Your task to perform on an android device: open chrome privacy settings Image 0: 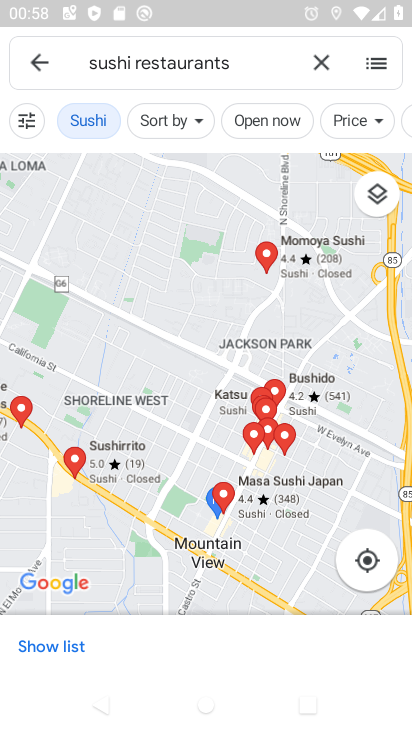
Step 0: press home button
Your task to perform on an android device: open chrome privacy settings Image 1: 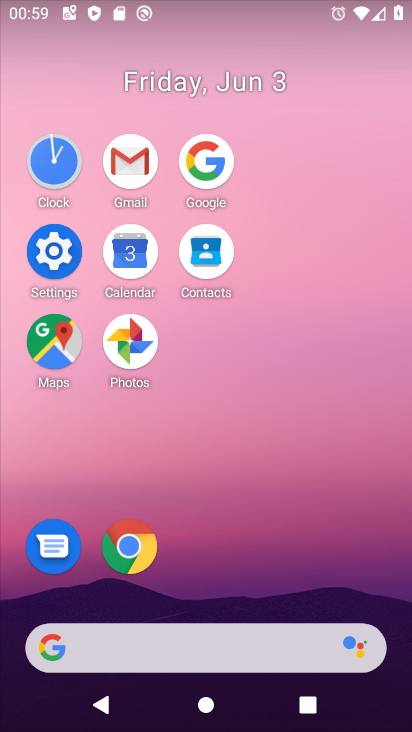
Step 1: click (142, 568)
Your task to perform on an android device: open chrome privacy settings Image 2: 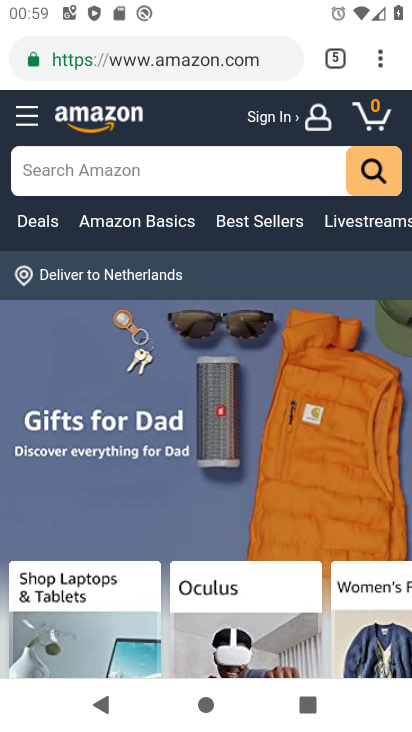
Step 2: click (387, 59)
Your task to perform on an android device: open chrome privacy settings Image 3: 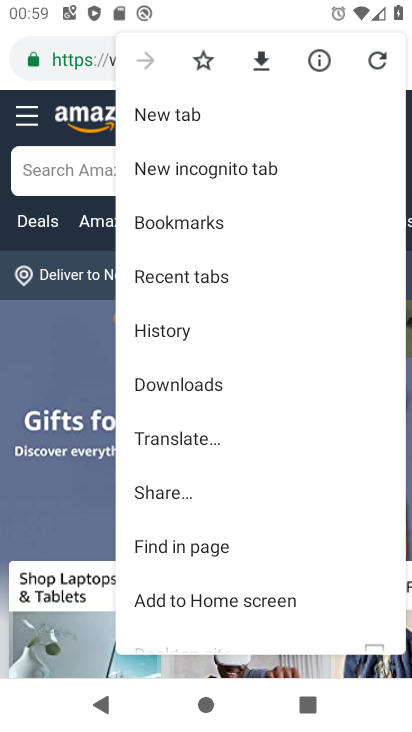
Step 3: drag from (256, 474) to (314, 162)
Your task to perform on an android device: open chrome privacy settings Image 4: 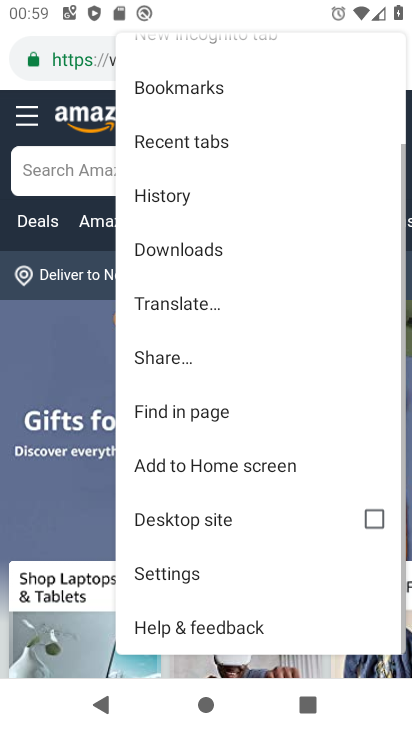
Step 4: click (226, 572)
Your task to perform on an android device: open chrome privacy settings Image 5: 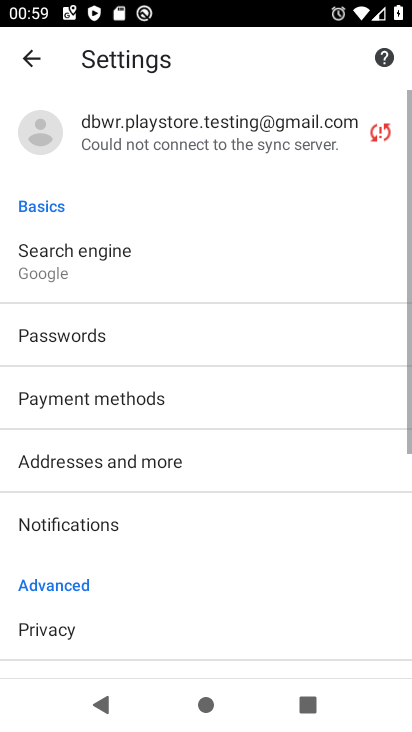
Step 5: drag from (223, 561) to (296, 217)
Your task to perform on an android device: open chrome privacy settings Image 6: 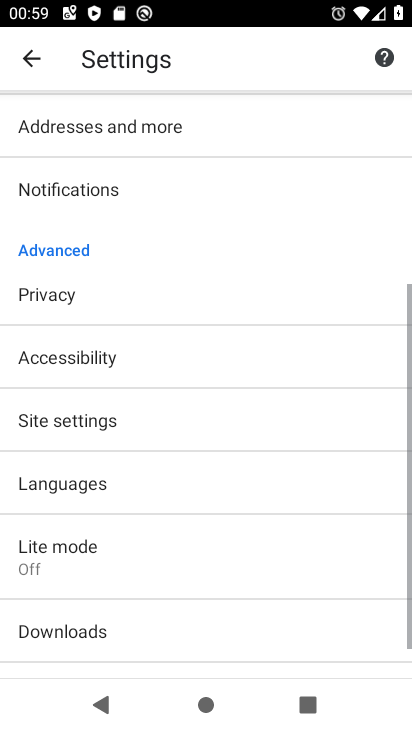
Step 6: click (149, 297)
Your task to perform on an android device: open chrome privacy settings Image 7: 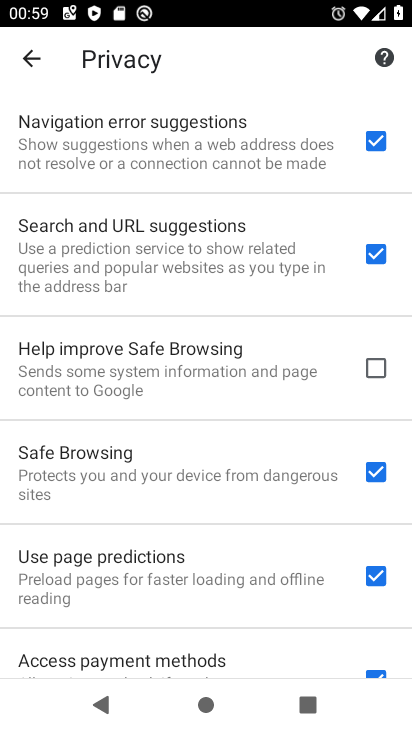
Step 7: task complete